Your task to perform on an android device: open app "Google Chrome" Image 0: 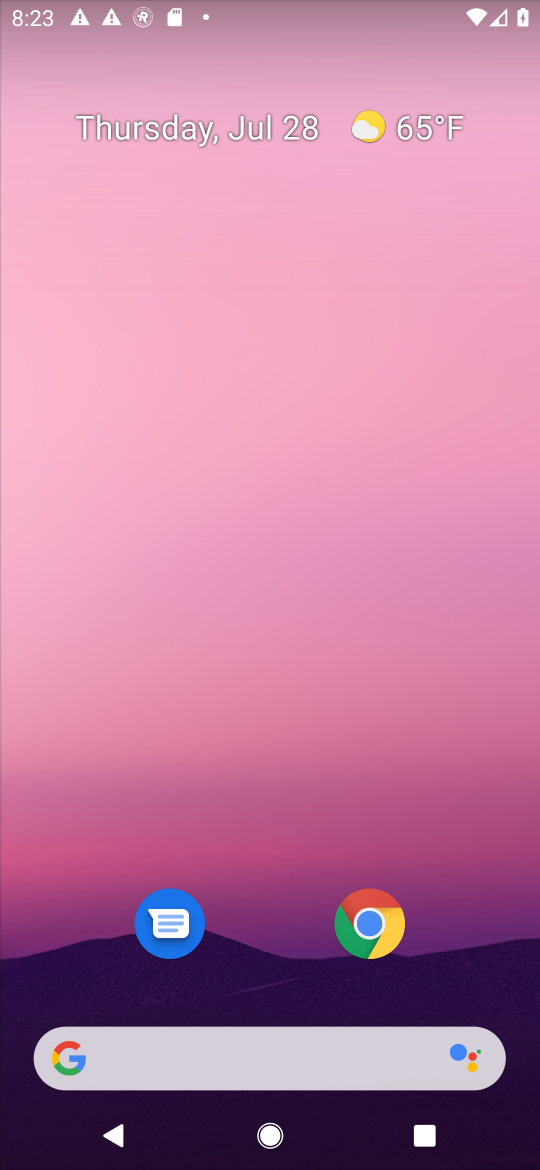
Step 0: drag from (452, 895) to (387, 210)
Your task to perform on an android device: open app "Google Chrome" Image 1: 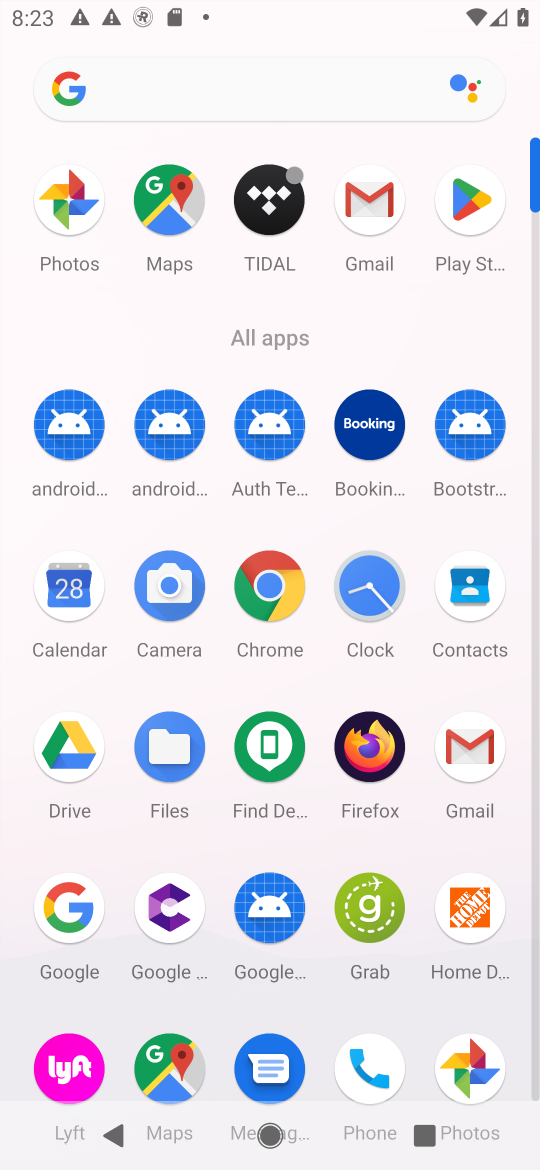
Step 1: click (456, 187)
Your task to perform on an android device: open app "Google Chrome" Image 2: 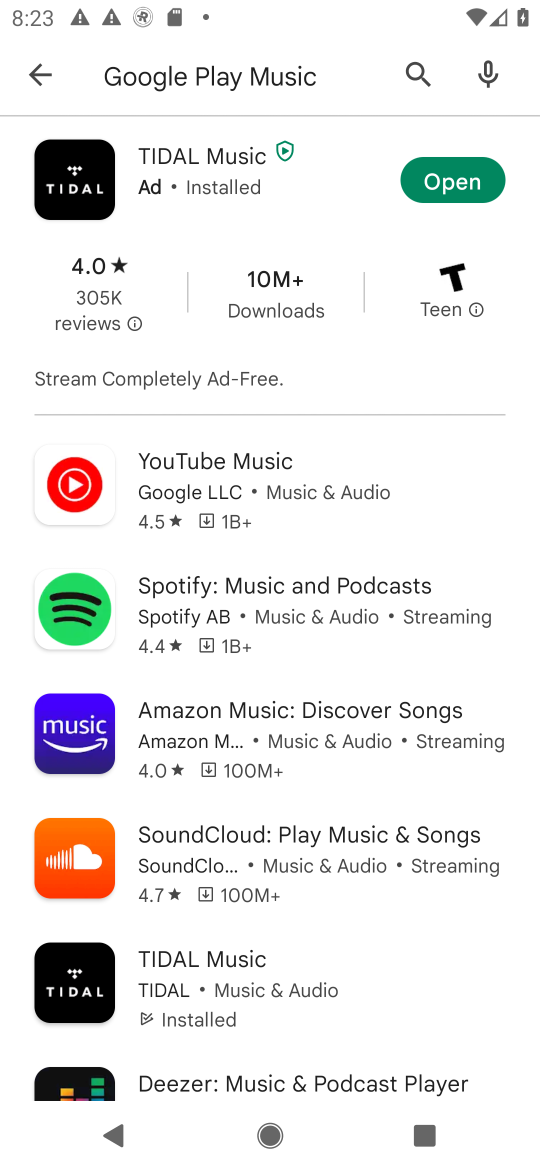
Step 2: click (314, 86)
Your task to perform on an android device: open app "Google Chrome" Image 3: 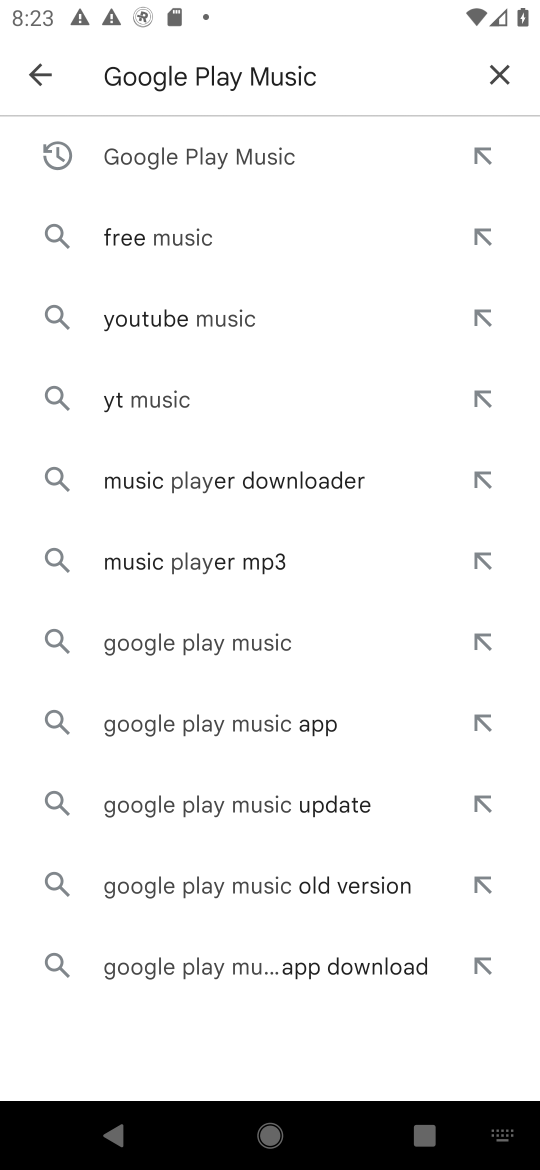
Step 3: click (491, 68)
Your task to perform on an android device: open app "Google Chrome" Image 4: 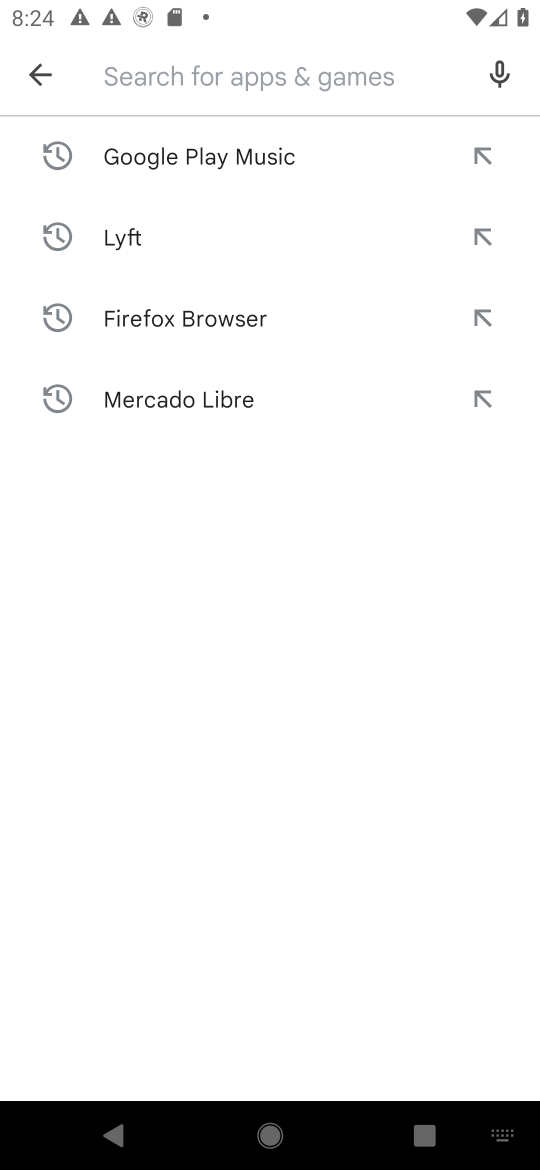
Step 4: type "Google Chrome"
Your task to perform on an android device: open app "Google Chrome" Image 5: 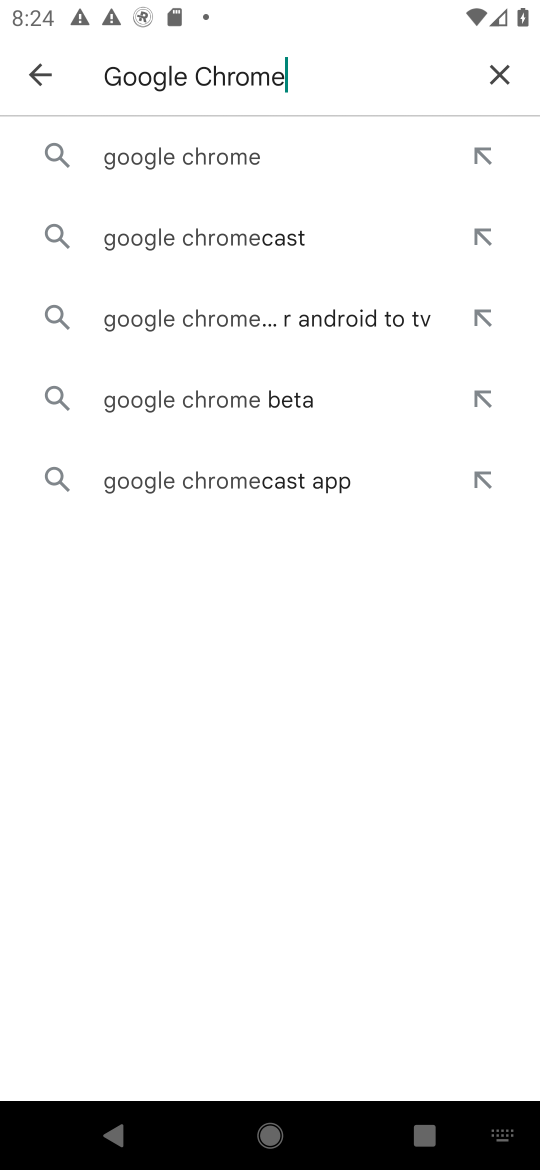
Step 5: press enter
Your task to perform on an android device: open app "Google Chrome" Image 6: 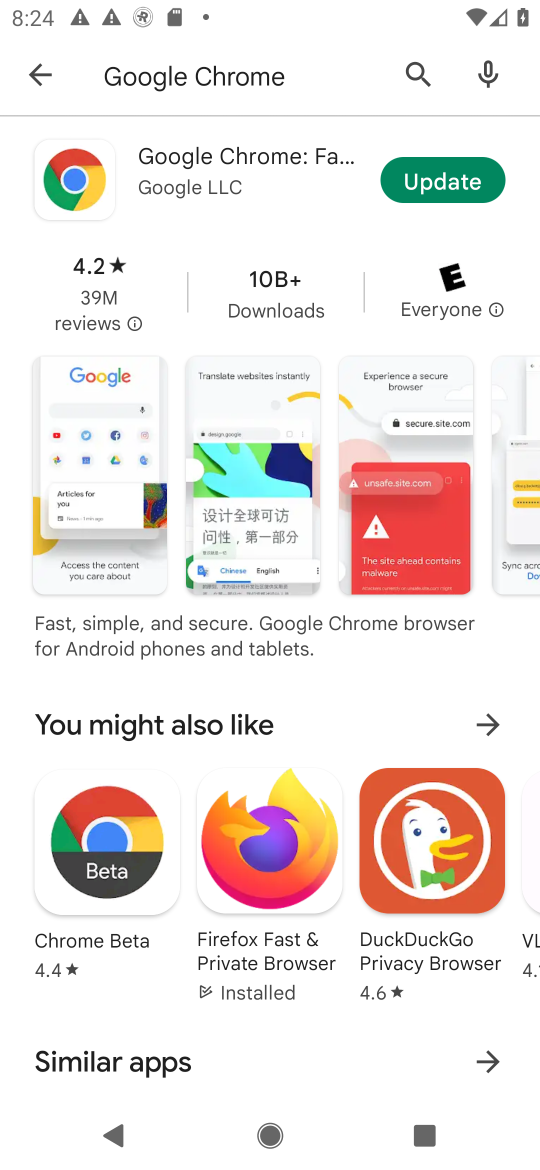
Step 6: click (242, 161)
Your task to perform on an android device: open app "Google Chrome" Image 7: 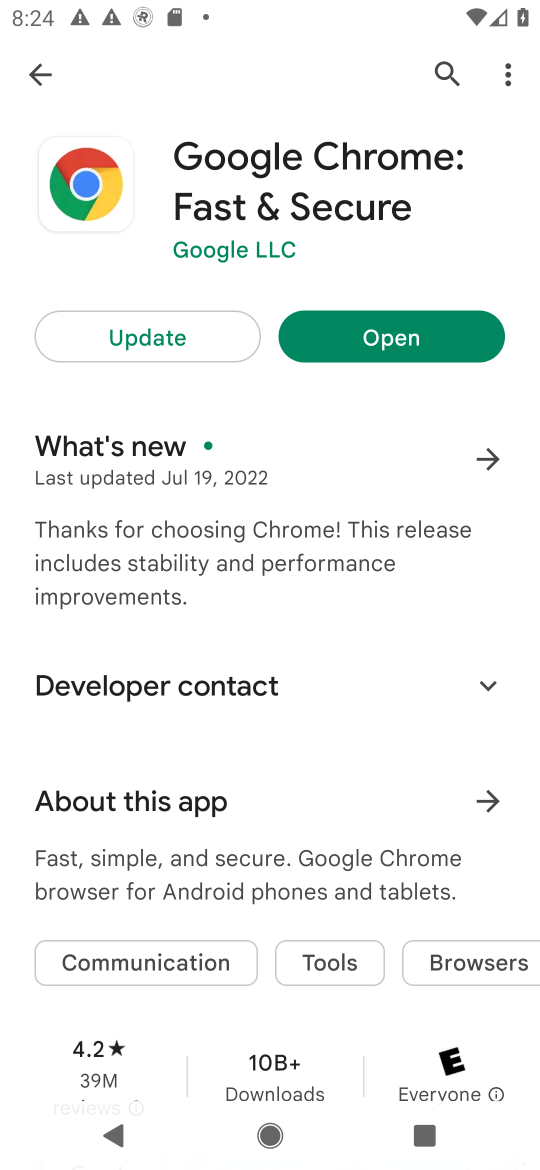
Step 7: click (410, 341)
Your task to perform on an android device: open app "Google Chrome" Image 8: 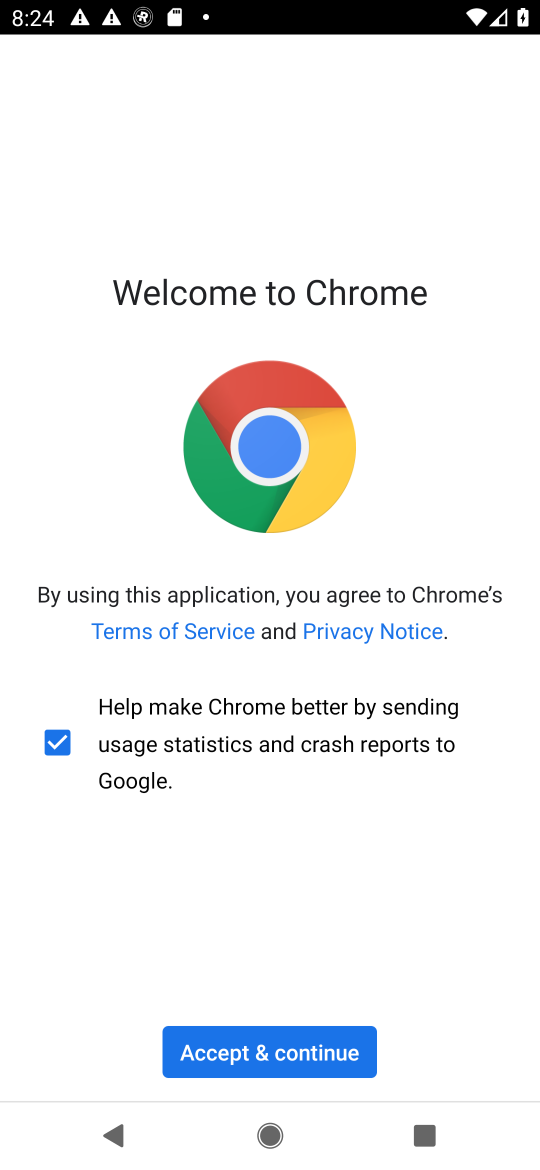
Step 8: click (286, 1045)
Your task to perform on an android device: open app "Google Chrome" Image 9: 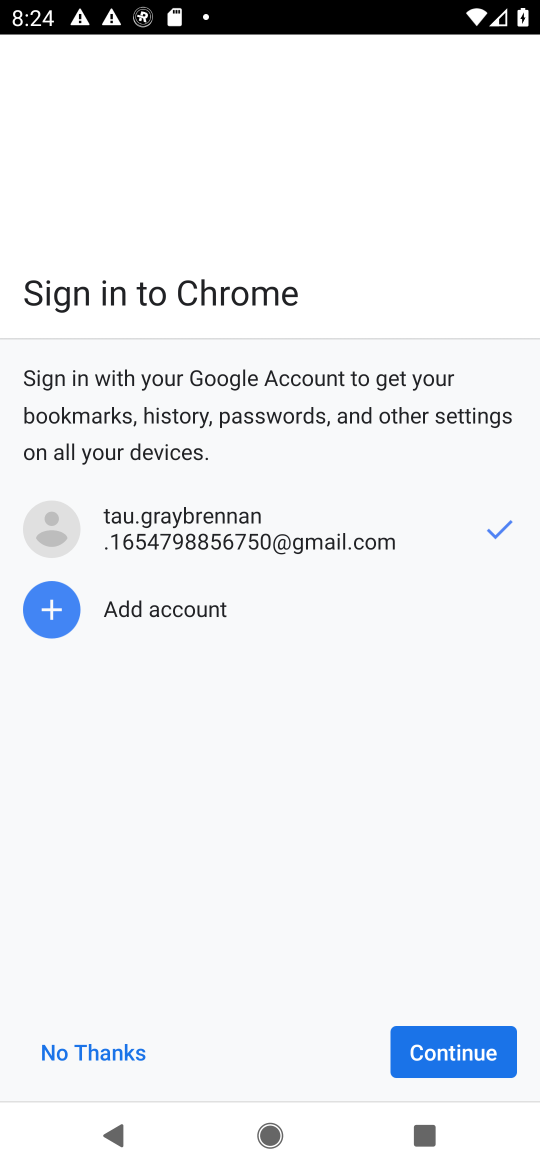
Step 9: click (456, 1029)
Your task to perform on an android device: open app "Google Chrome" Image 10: 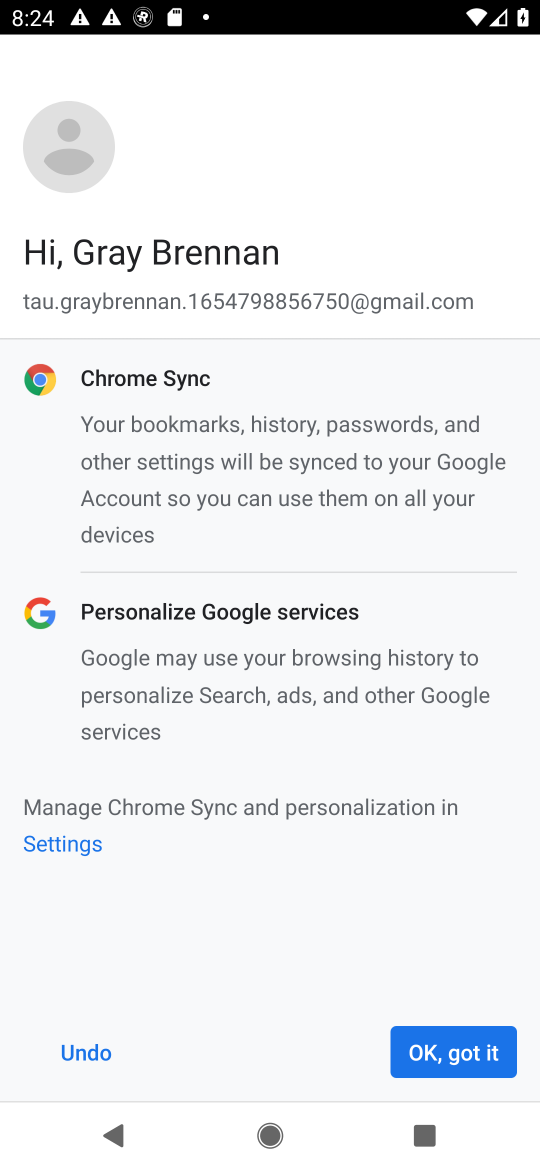
Step 10: click (455, 1039)
Your task to perform on an android device: open app "Google Chrome" Image 11: 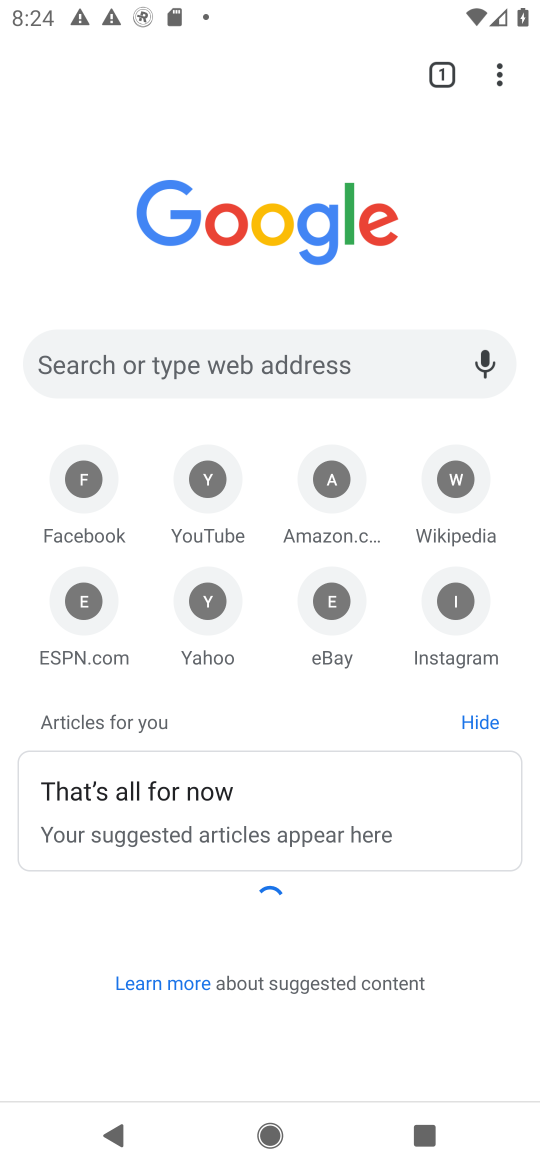
Step 11: task complete